Your task to perform on an android device: Go to Wikipedia Image 0: 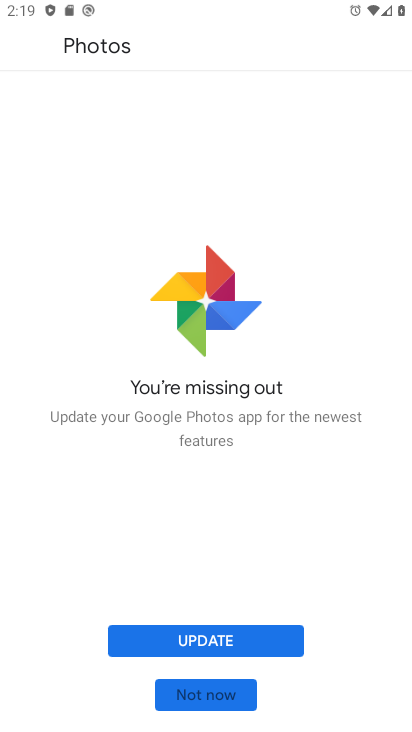
Step 0: click (197, 699)
Your task to perform on an android device: Go to Wikipedia Image 1: 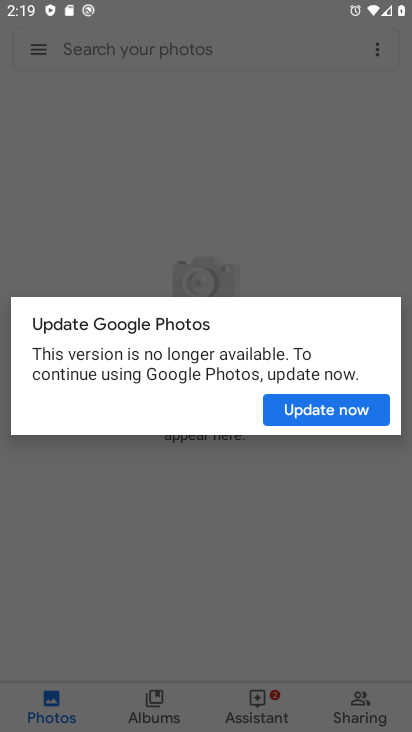
Step 1: press back button
Your task to perform on an android device: Go to Wikipedia Image 2: 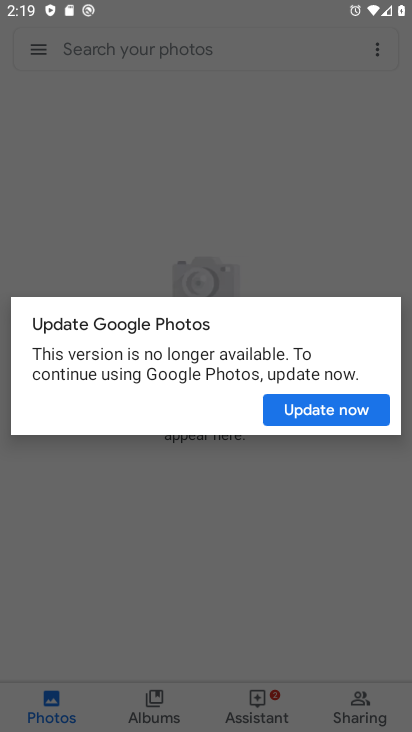
Step 2: click (287, 226)
Your task to perform on an android device: Go to Wikipedia Image 3: 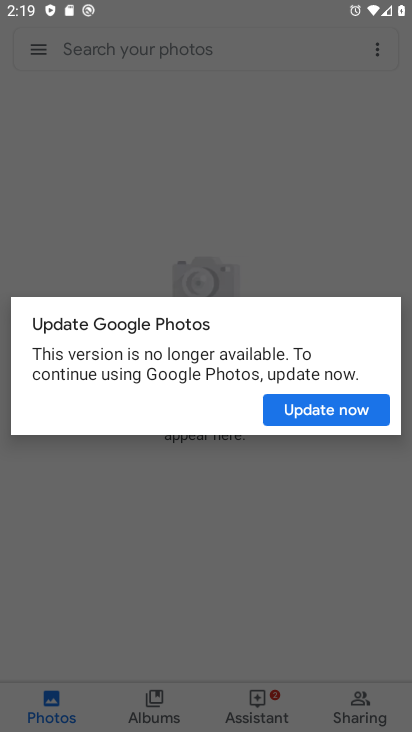
Step 3: click (297, 207)
Your task to perform on an android device: Go to Wikipedia Image 4: 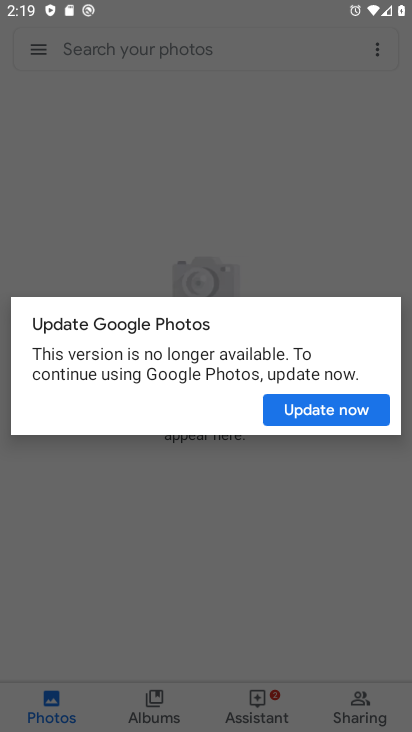
Step 4: press home button
Your task to perform on an android device: Go to Wikipedia Image 5: 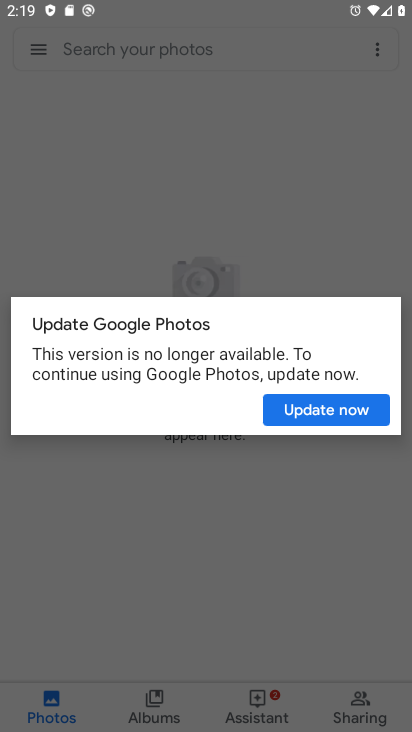
Step 5: press home button
Your task to perform on an android device: Go to Wikipedia Image 6: 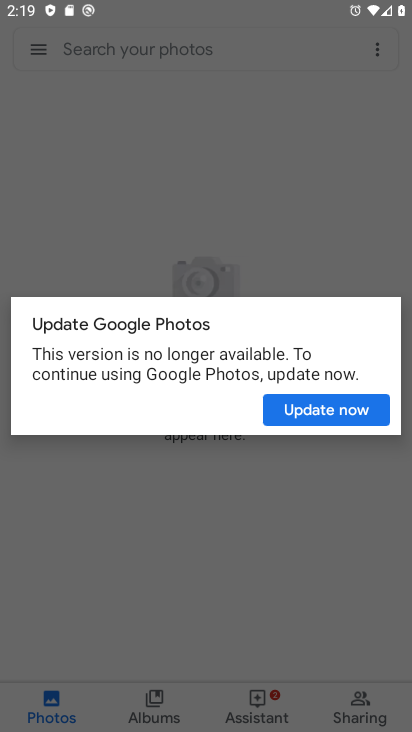
Step 6: click (184, 183)
Your task to perform on an android device: Go to Wikipedia Image 7: 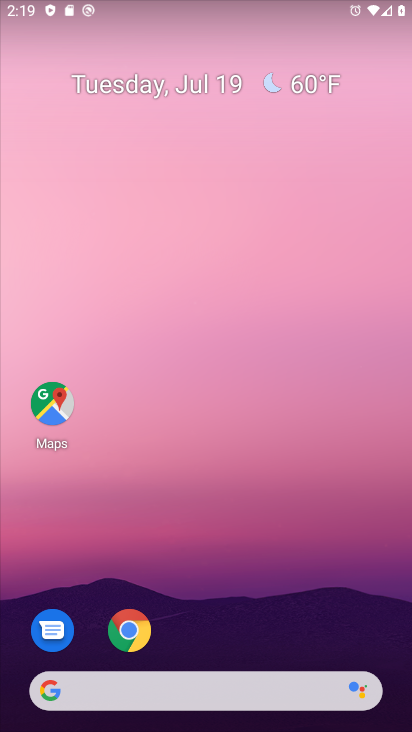
Step 7: drag from (232, 412) to (209, 127)
Your task to perform on an android device: Go to Wikipedia Image 8: 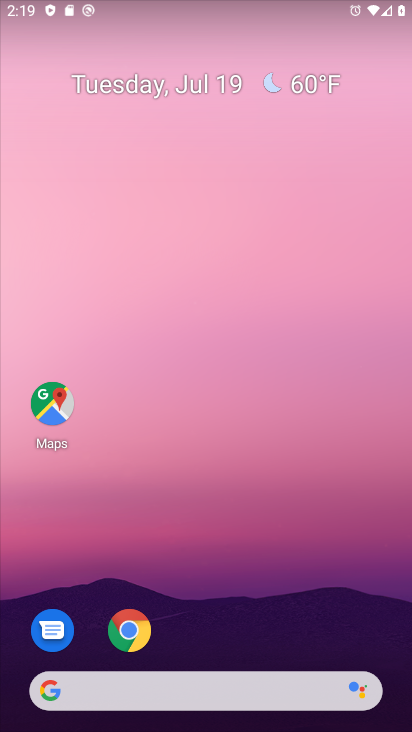
Step 8: drag from (254, 571) to (210, 146)
Your task to perform on an android device: Go to Wikipedia Image 9: 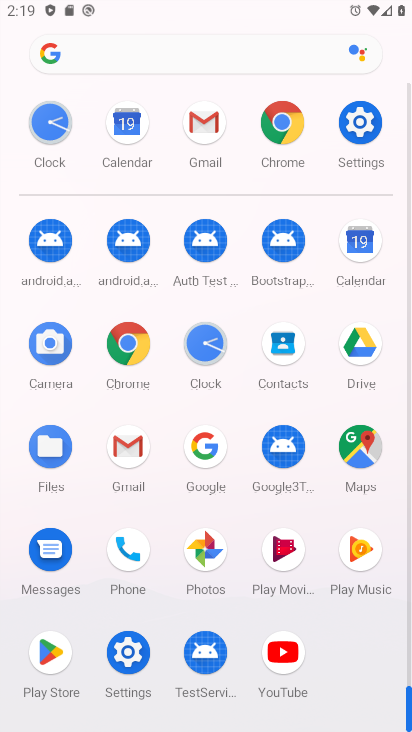
Step 9: click (281, 131)
Your task to perform on an android device: Go to Wikipedia Image 10: 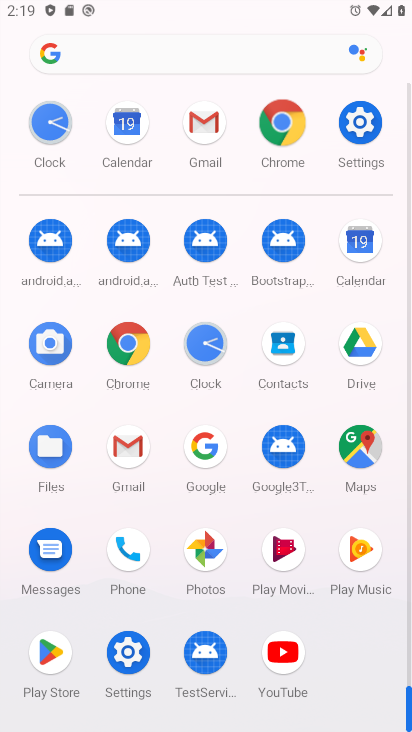
Step 10: click (281, 131)
Your task to perform on an android device: Go to Wikipedia Image 11: 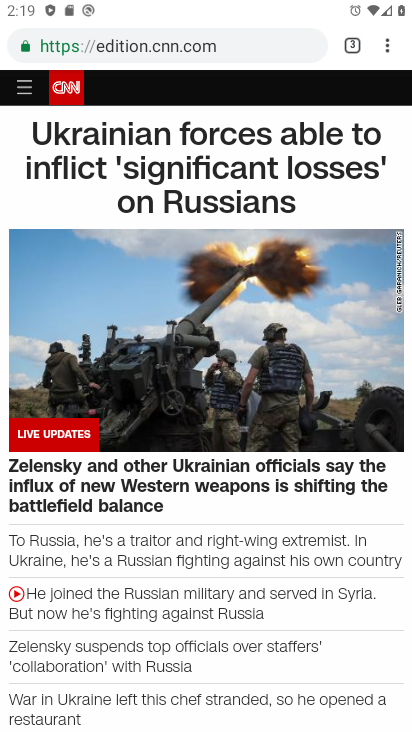
Step 11: drag from (401, 47) to (229, 82)
Your task to perform on an android device: Go to Wikipedia Image 12: 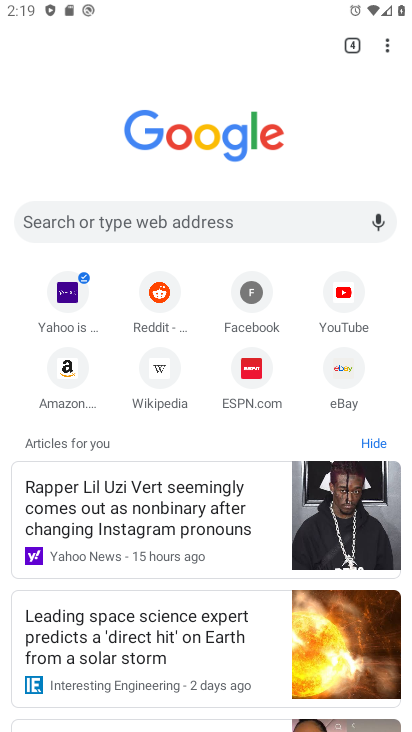
Step 12: click (149, 377)
Your task to perform on an android device: Go to Wikipedia Image 13: 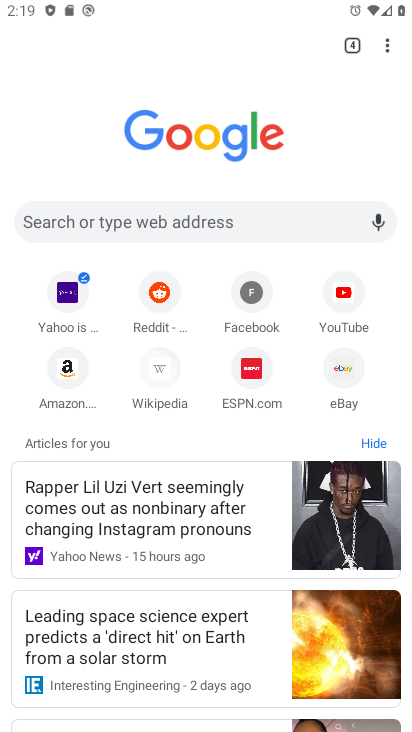
Step 13: click (149, 376)
Your task to perform on an android device: Go to Wikipedia Image 14: 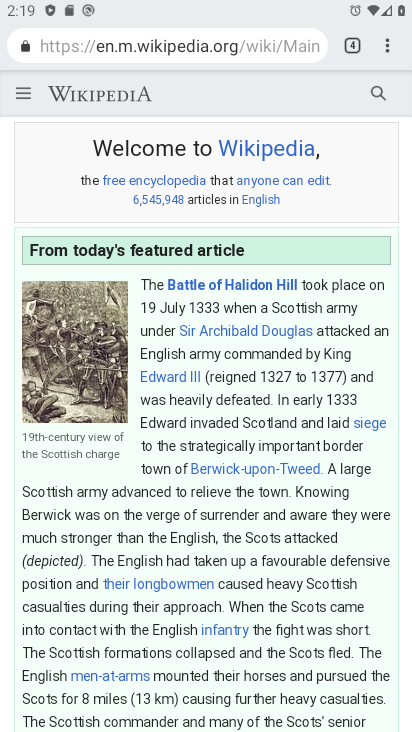
Step 14: task complete